Your task to perform on an android device: Open the calendar Image 0: 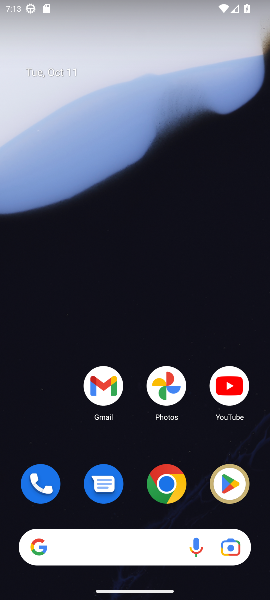
Step 0: drag from (121, 545) to (183, 138)
Your task to perform on an android device: Open the calendar Image 1: 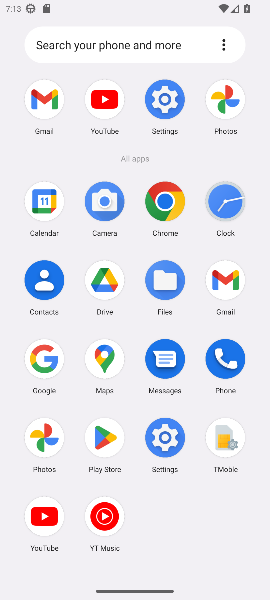
Step 1: click (44, 200)
Your task to perform on an android device: Open the calendar Image 2: 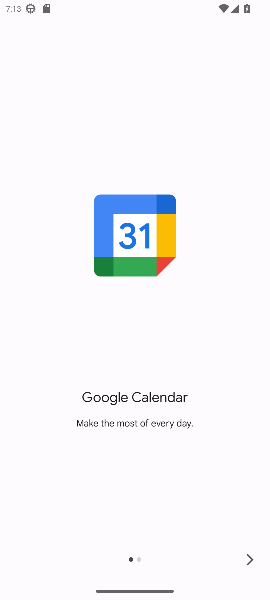
Step 2: click (253, 559)
Your task to perform on an android device: Open the calendar Image 3: 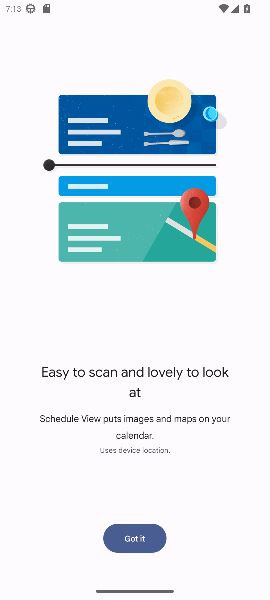
Step 3: click (142, 540)
Your task to perform on an android device: Open the calendar Image 4: 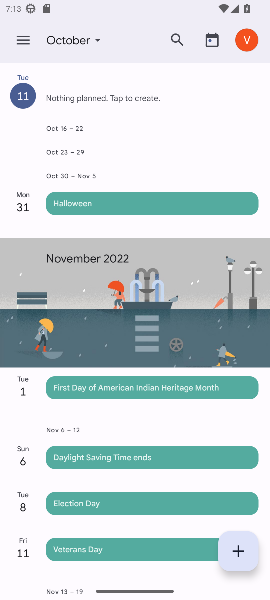
Step 4: task complete